Your task to perform on an android device: Go to Yahoo.com Image 0: 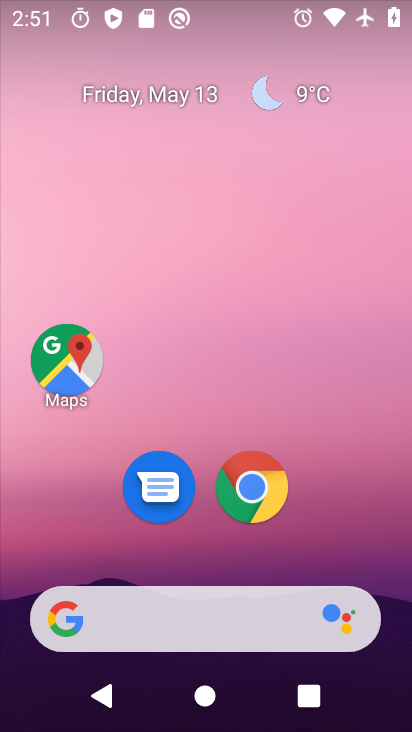
Step 0: click (258, 492)
Your task to perform on an android device: Go to Yahoo.com Image 1: 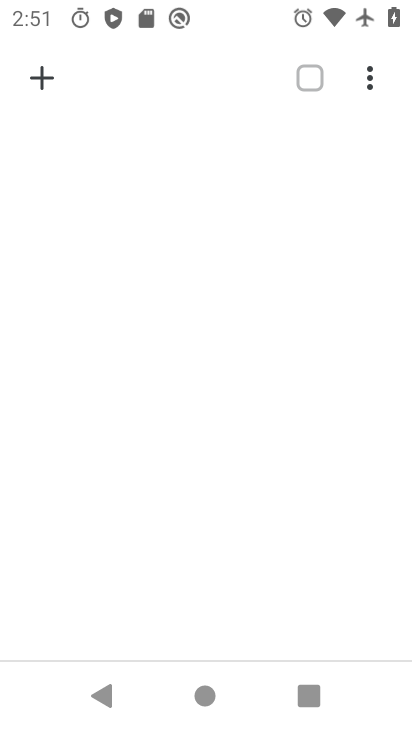
Step 1: click (45, 81)
Your task to perform on an android device: Go to Yahoo.com Image 2: 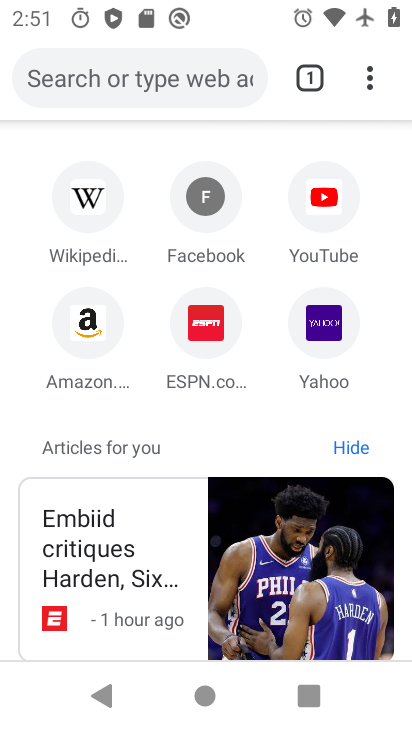
Step 2: click (329, 332)
Your task to perform on an android device: Go to Yahoo.com Image 3: 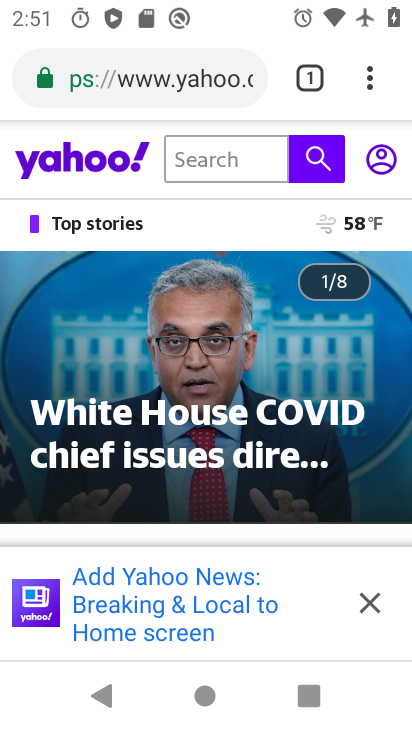
Step 3: task complete